Your task to perform on an android device: Open calendar and show me the third week of next month Image 0: 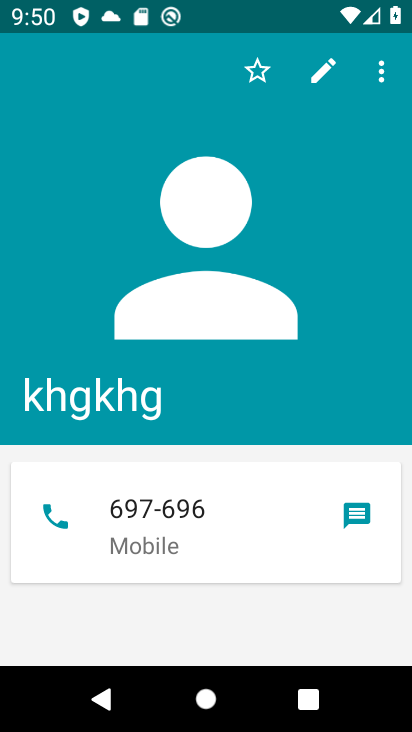
Step 0: press home button
Your task to perform on an android device: Open calendar and show me the third week of next month Image 1: 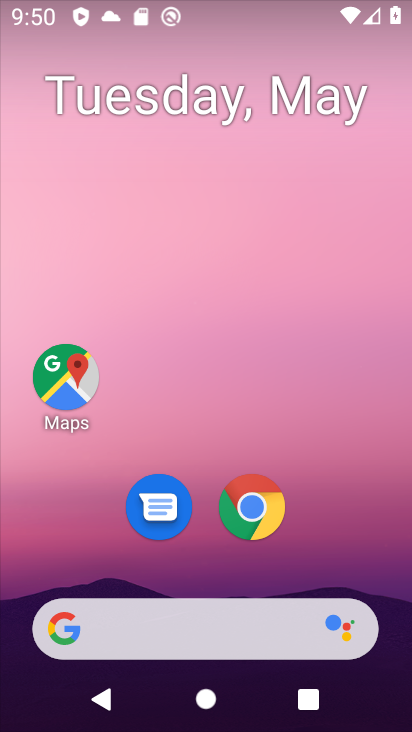
Step 1: drag from (336, 542) to (291, 171)
Your task to perform on an android device: Open calendar and show me the third week of next month Image 2: 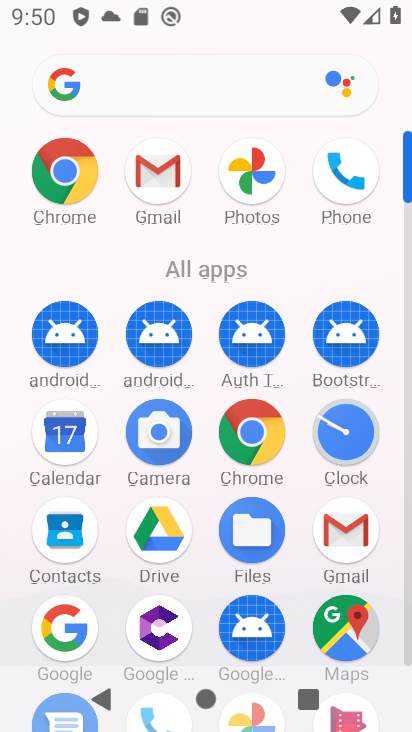
Step 2: click (56, 439)
Your task to perform on an android device: Open calendar and show me the third week of next month Image 3: 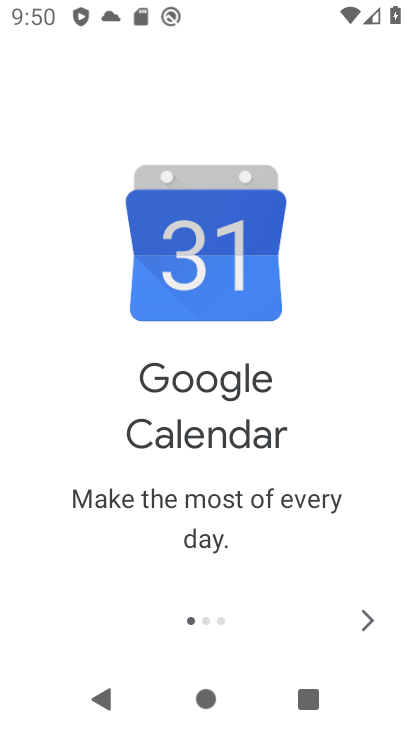
Step 3: click (363, 620)
Your task to perform on an android device: Open calendar and show me the third week of next month Image 4: 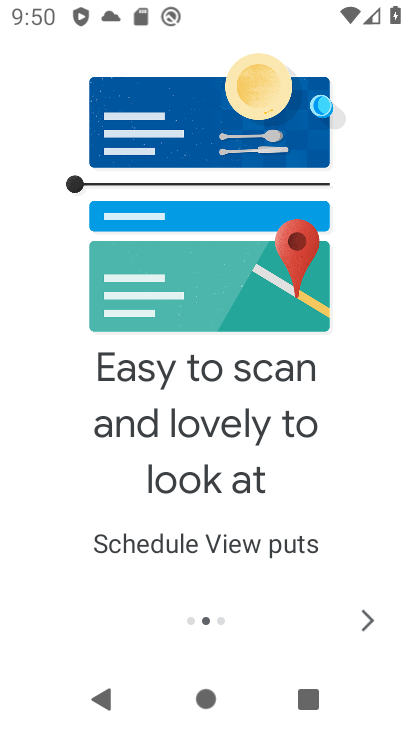
Step 4: click (363, 620)
Your task to perform on an android device: Open calendar and show me the third week of next month Image 5: 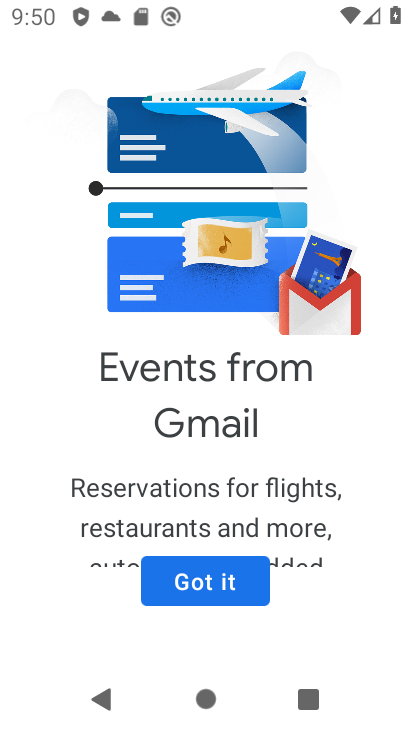
Step 5: click (251, 587)
Your task to perform on an android device: Open calendar and show me the third week of next month Image 6: 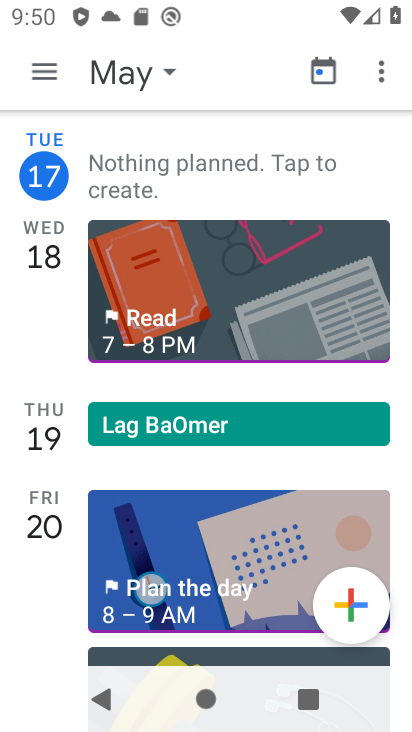
Step 6: click (45, 75)
Your task to perform on an android device: Open calendar and show me the third week of next month Image 7: 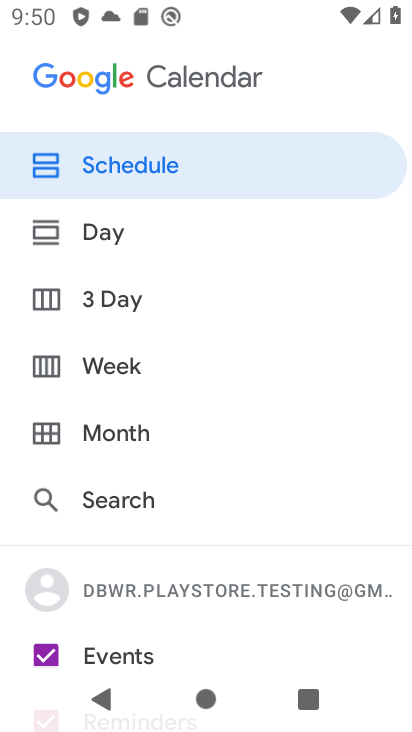
Step 7: click (139, 356)
Your task to perform on an android device: Open calendar and show me the third week of next month Image 8: 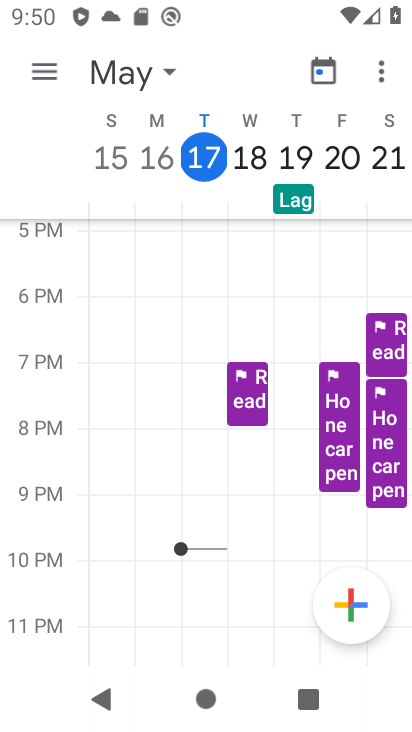
Step 8: click (153, 79)
Your task to perform on an android device: Open calendar and show me the third week of next month Image 9: 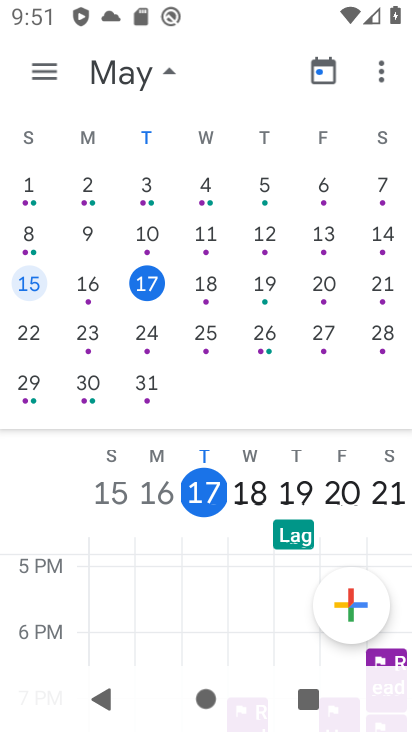
Step 9: drag from (397, 258) to (37, 252)
Your task to perform on an android device: Open calendar and show me the third week of next month Image 10: 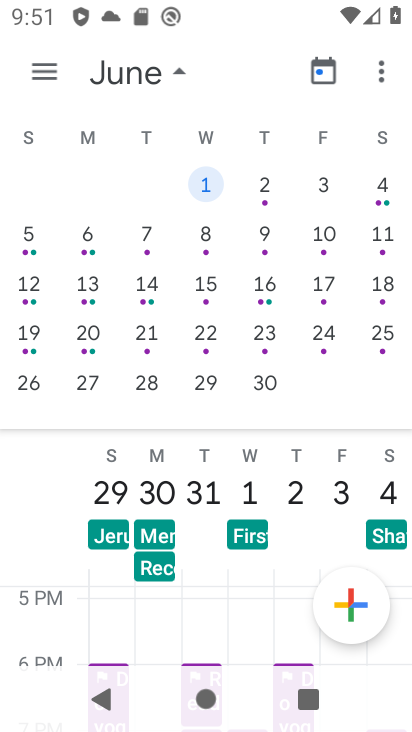
Step 10: click (203, 324)
Your task to perform on an android device: Open calendar and show me the third week of next month Image 11: 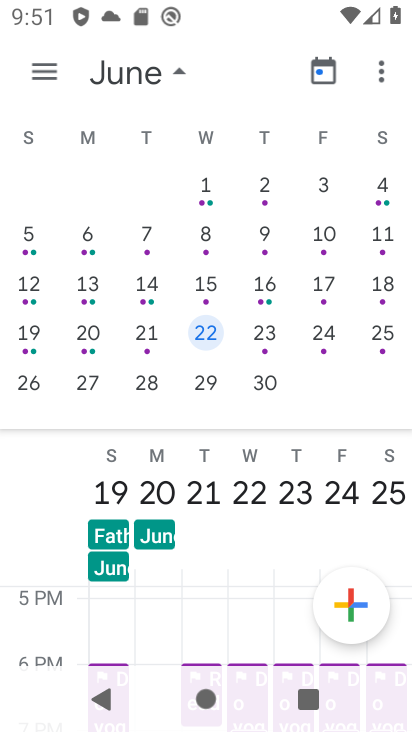
Step 11: click (166, 77)
Your task to perform on an android device: Open calendar and show me the third week of next month Image 12: 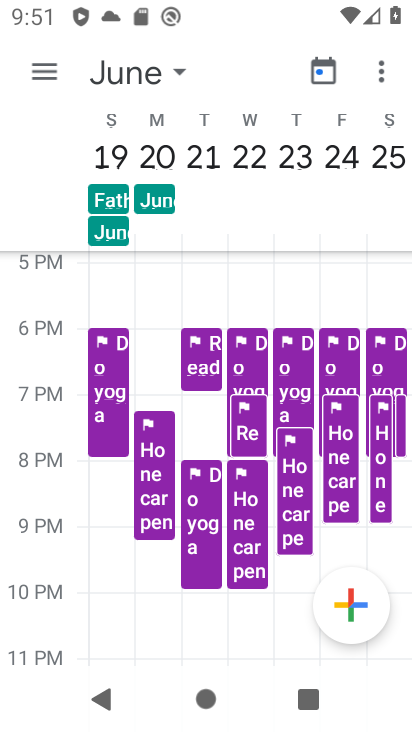
Step 12: task complete